Your task to perform on an android device: Open ESPN.com Image 0: 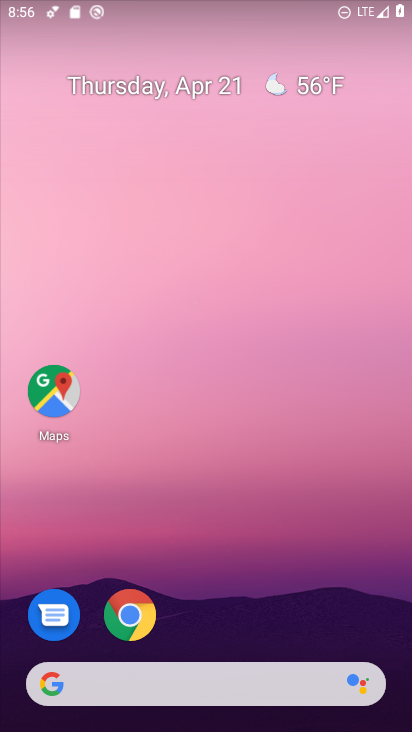
Step 0: drag from (242, 235) to (237, 41)
Your task to perform on an android device: Open ESPN.com Image 1: 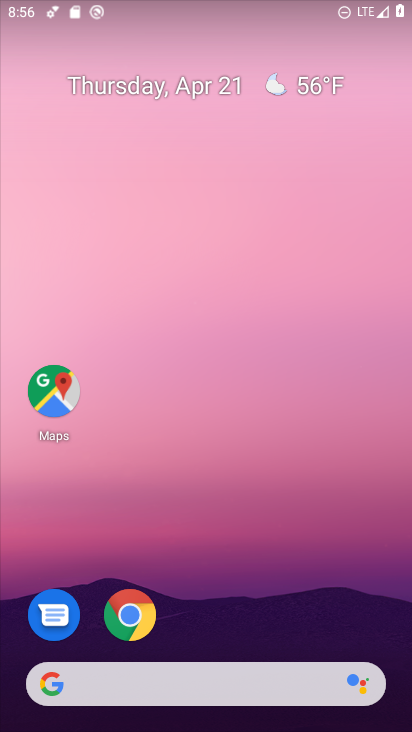
Step 1: drag from (328, 558) to (381, 37)
Your task to perform on an android device: Open ESPN.com Image 2: 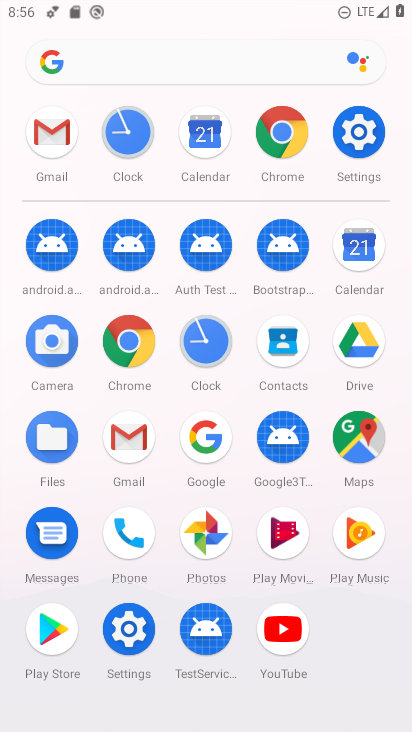
Step 2: click (279, 127)
Your task to perform on an android device: Open ESPN.com Image 3: 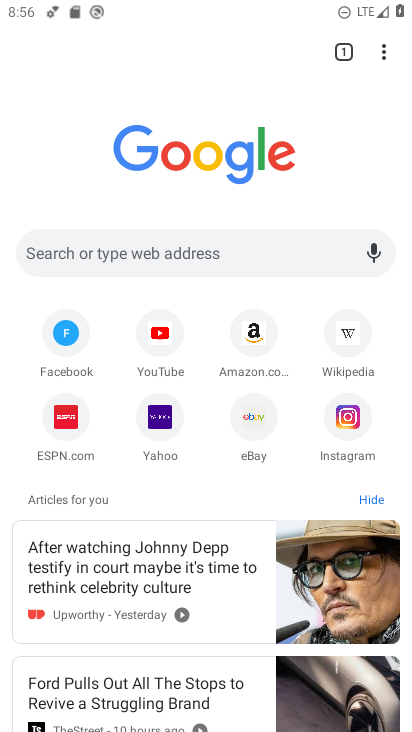
Step 3: click (66, 436)
Your task to perform on an android device: Open ESPN.com Image 4: 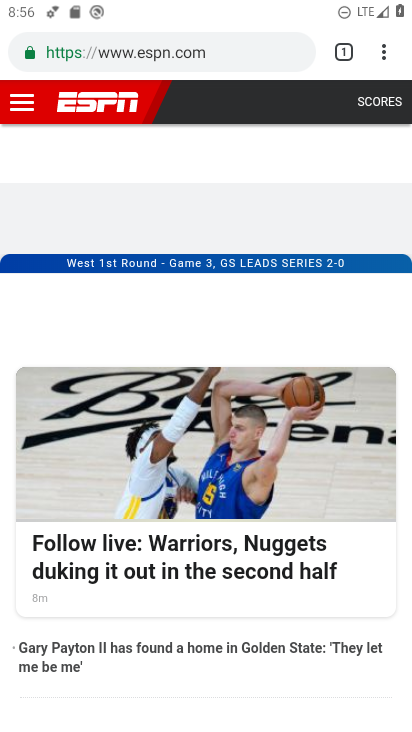
Step 4: task complete